Your task to perform on an android device: Open calendar and show me the fourth week of next month Image 0: 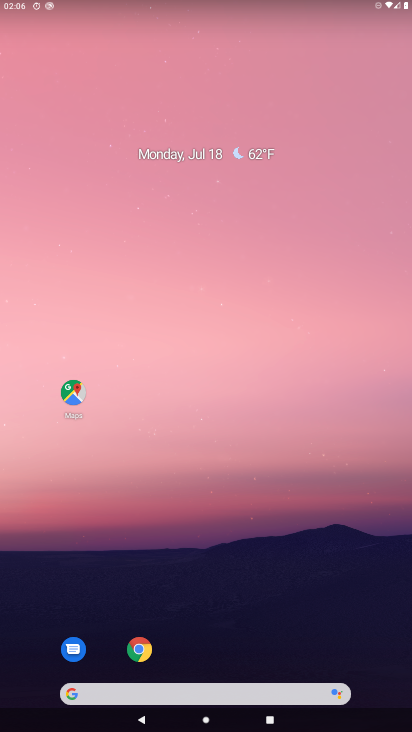
Step 0: drag from (285, 32) to (358, 10)
Your task to perform on an android device: Open calendar and show me the fourth week of next month Image 1: 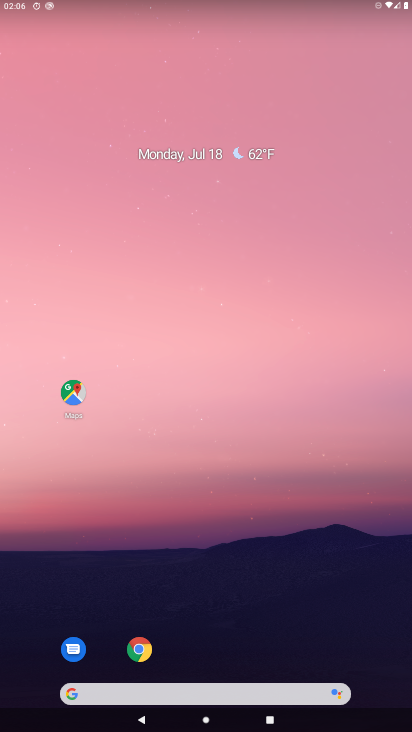
Step 1: click (183, 24)
Your task to perform on an android device: Open calendar and show me the fourth week of next month Image 2: 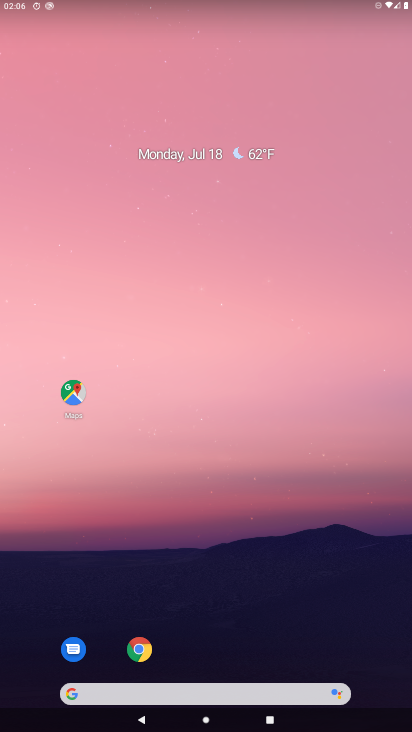
Step 2: drag from (22, 688) to (138, 100)
Your task to perform on an android device: Open calendar and show me the fourth week of next month Image 3: 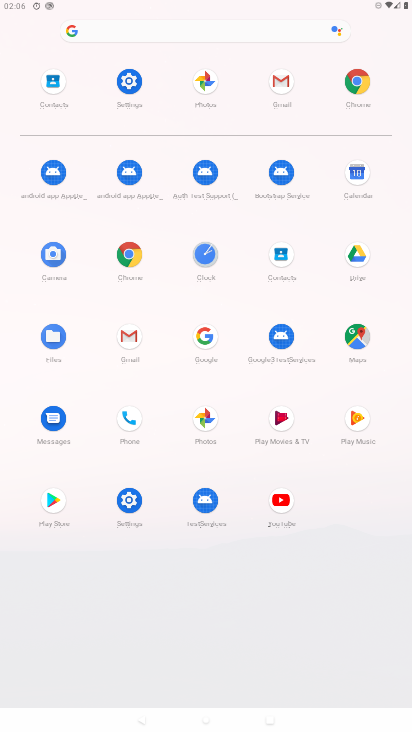
Step 3: click (345, 190)
Your task to perform on an android device: Open calendar and show me the fourth week of next month Image 4: 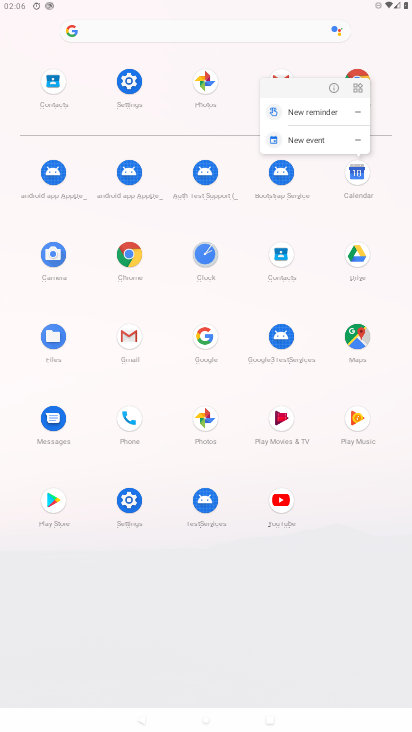
Step 4: click (347, 180)
Your task to perform on an android device: Open calendar and show me the fourth week of next month Image 5: 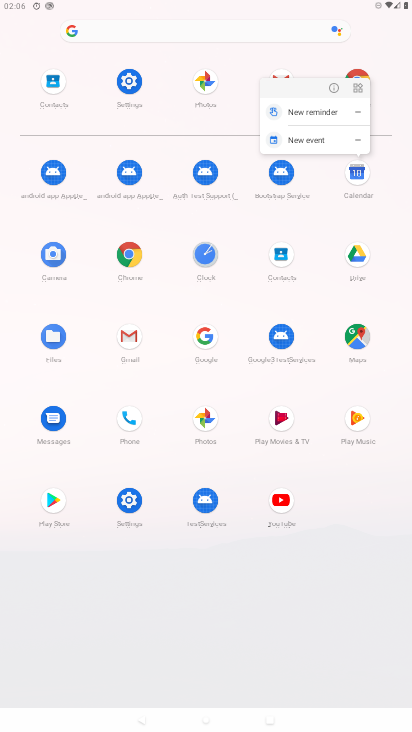
Step 5: click (354, 175)
Your task to perform on an android device: Open calendar and show me the fourth week of next month Image 6: 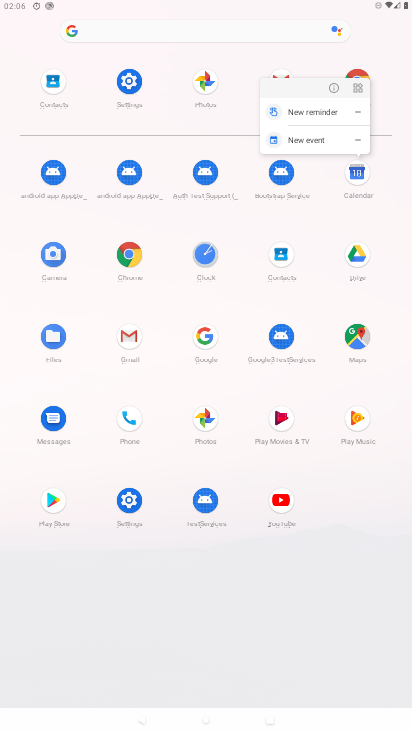
Step 6: click (354, 175)
Your task to perform on an android device: Open calendar and show me the fourth week of next month Image 7: 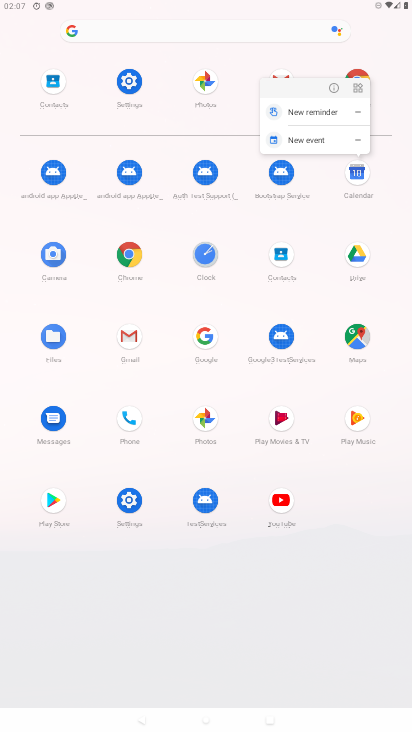
Step 7: task complete